Your task to perform on an android device: Turn on the flashlight Image 0: 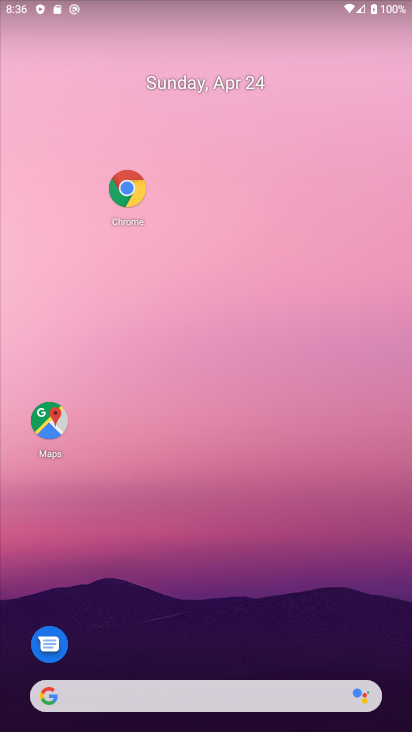
Step 0: drag from (221, 643) to (222, 19)
Your task to perform on an android device: Turn on the flashlight Image 1: 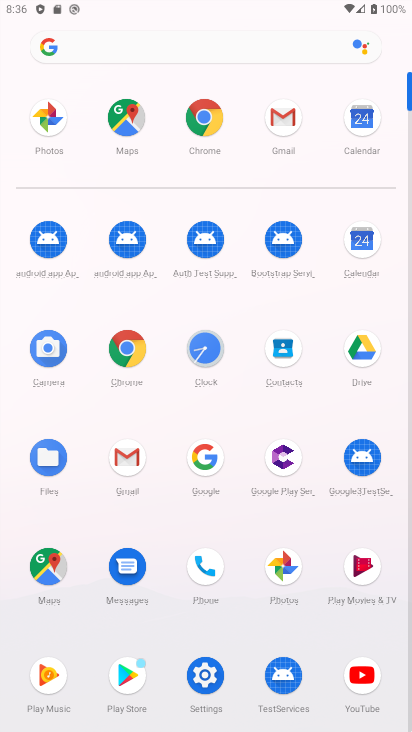
Step 1: click (196, 668)
Your task to perform on an android device: Turn on the flashlight Image 2: 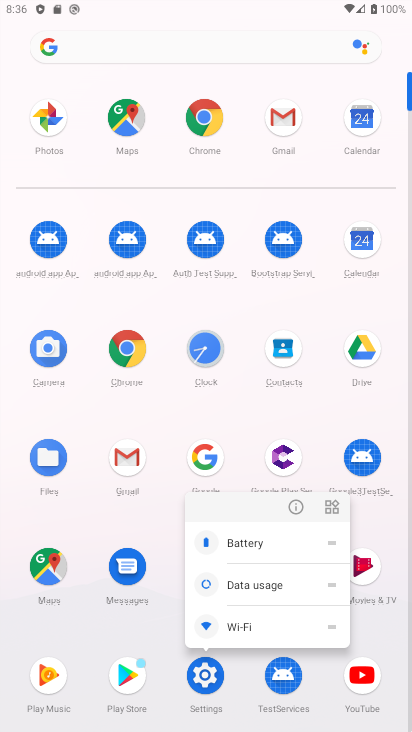
Step 2: click (292, 507)
Your task to perform on an android device: Turn on the flashlight Image 3: 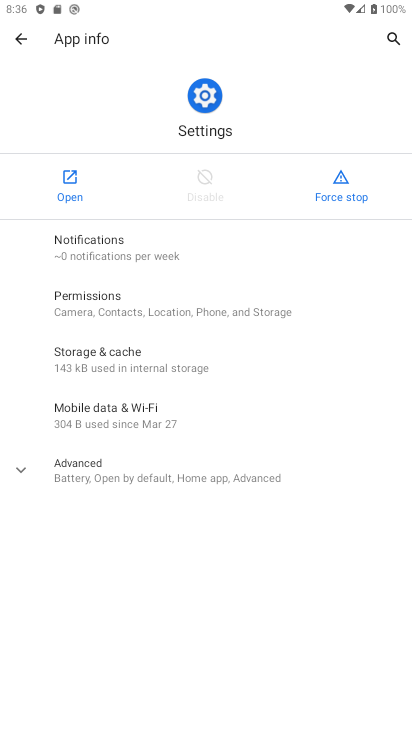
Step 3: click (62, 178)
Your task to perform on an android device: Turn on the flashlight Image 4: 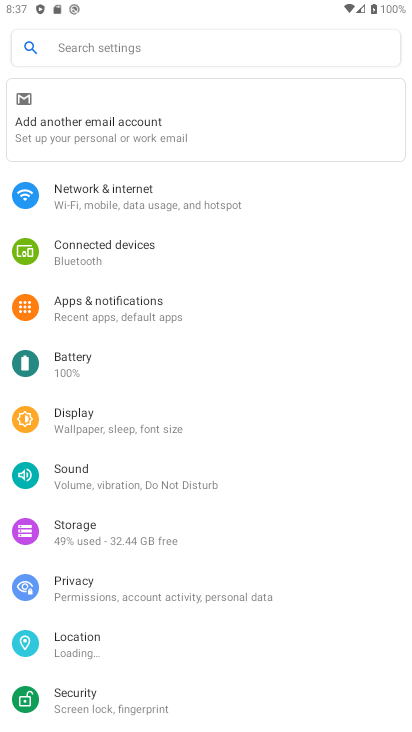
Step 4: click (148, 47)
Your task to perform on an android device: Turn on the flashlight Image 5: 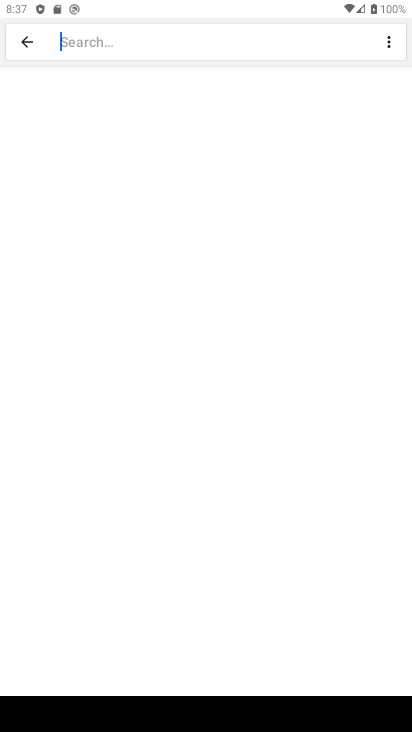
Step 5: type "flashlight"
Your task to perform on an android device: Turn on the flashlight Image 6: 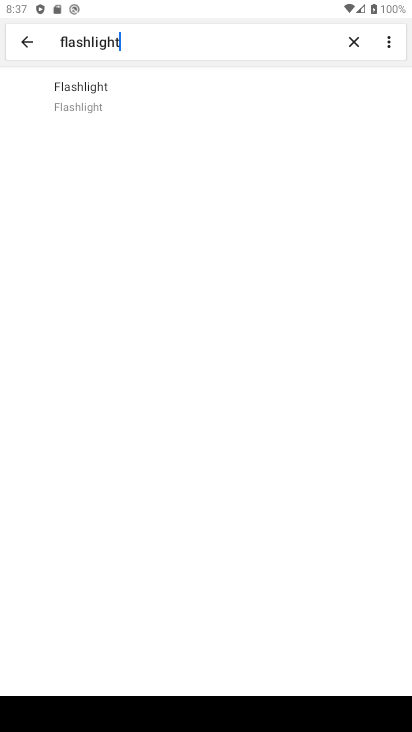
Step 6: click (147, 105)
Your task to perform on an android device: Turn on the flashlight Image 7: 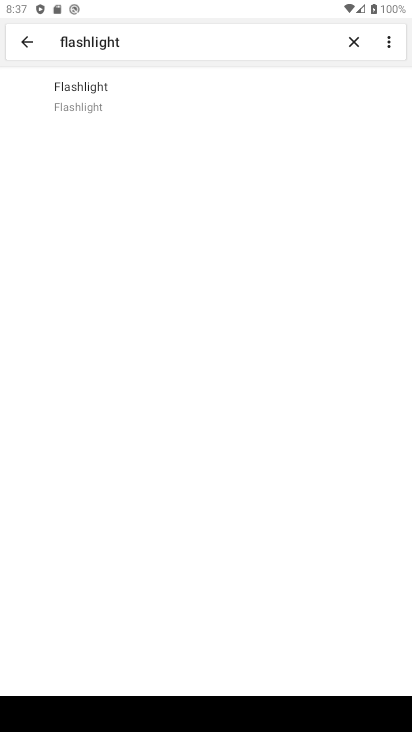
Step 7: click (137, 96)
Your task to perform on an android device: Turn on the flashlight Image 8: 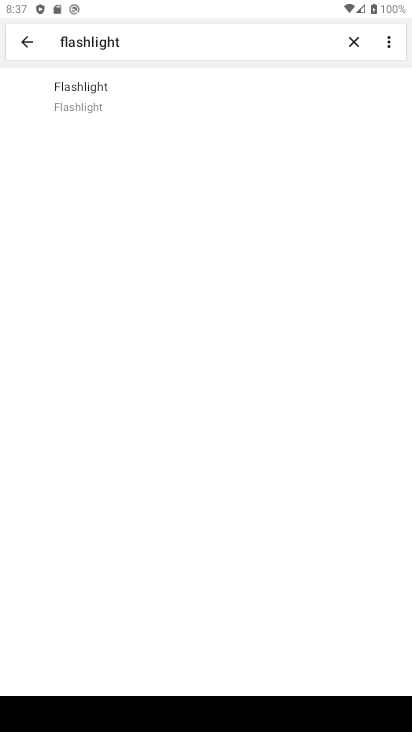
Step 8: click (137, 95)
Your task to perform on an android device: Turn on the flashlight Image 9: 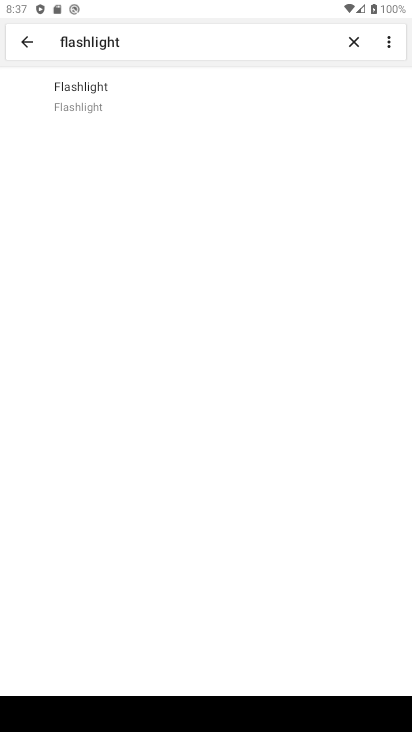
Step 9: task complete